Your task to perform on an android device: turn off airplane mode Image 0: 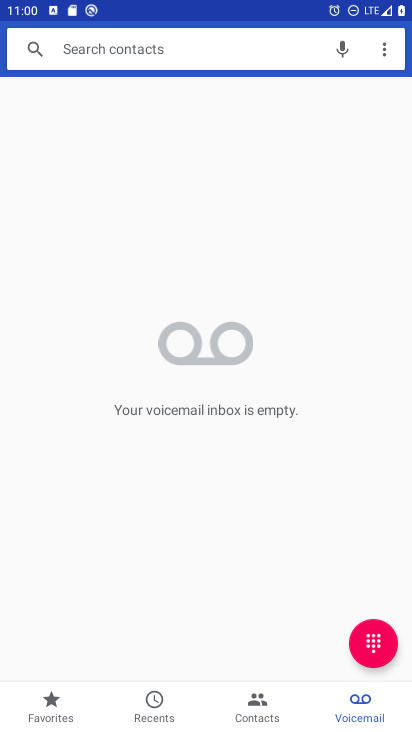
Step 0: press home button
Your task to perform on an android device: turn off airplane mode Image 1: 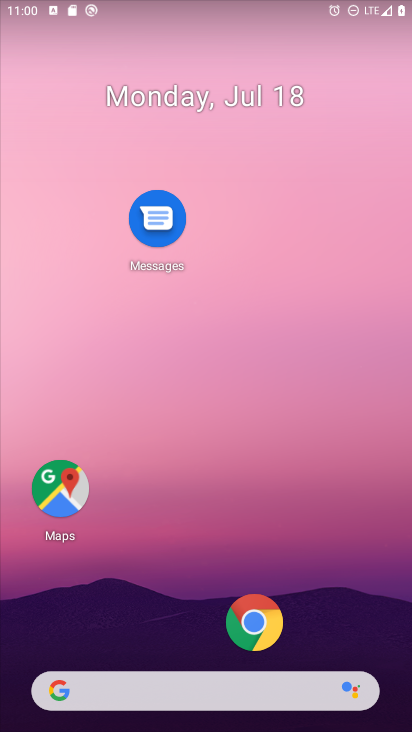
Step 1: drag from (227, 621) to (373, 43)
Your task to perform on an android device: turn off airplane mode Image 2: 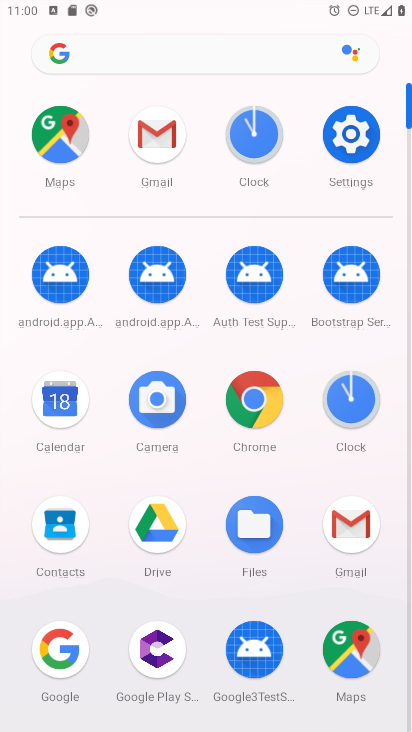
Step 2: click (348, 152)
Your task to perform on an android device: turn off airplane mode Image 3: 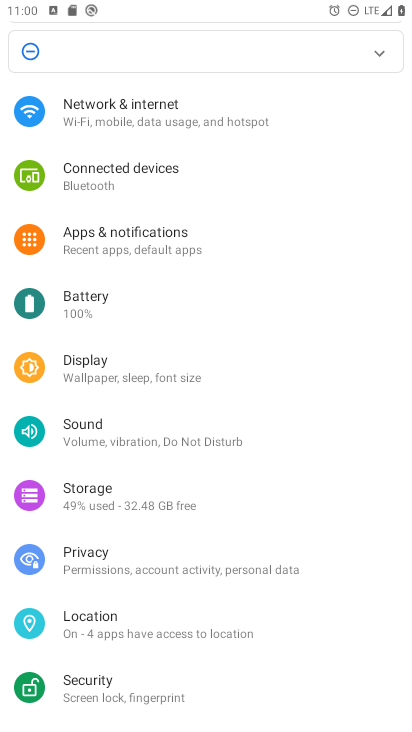
Step 3: click (180, 111)
Your task to perform on an android device: turn off airplane mode Image 4: 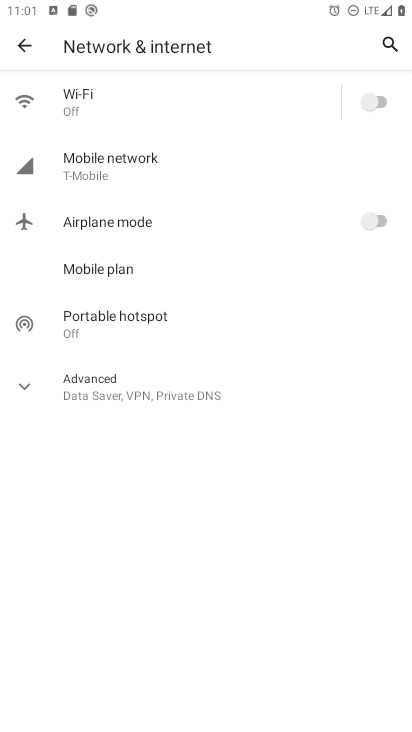
Step 4: task complete